Your task to perform on an android device: Go to Yahoo.com Image 0: 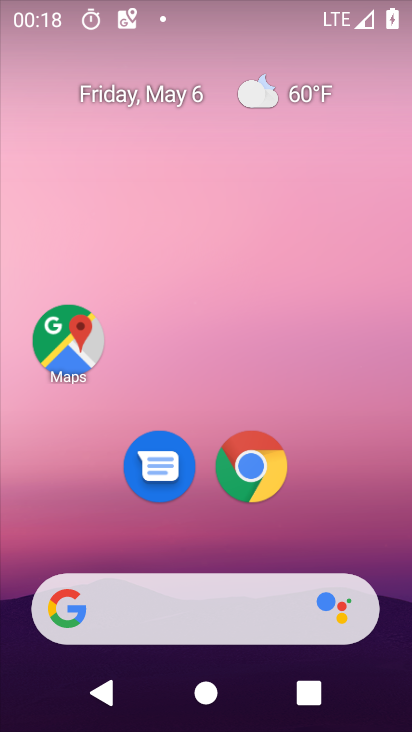
Step 0: click (254, 471)
Your task to perform on an android device: Go to Yahoo.com Image 1: 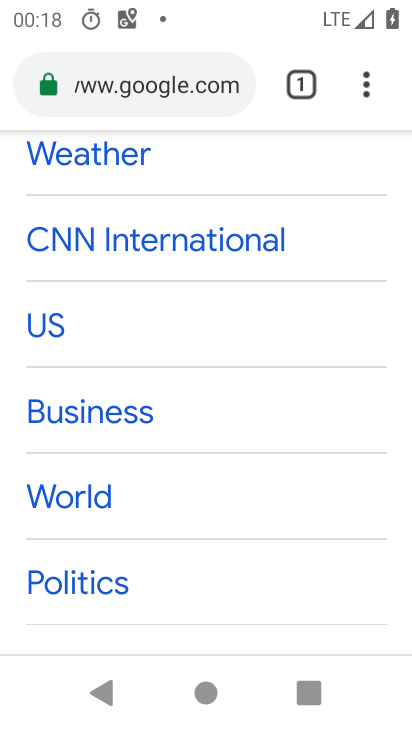
Step 1: click (307, 90)
Your task to perform on an android device: Go to Yahoo.com Image 2: 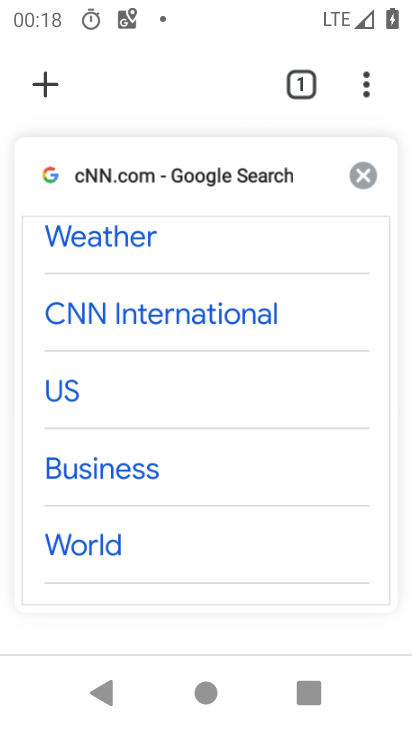
Step 2: click (367, 178)
Your task to perform on an android device: Go to Yahoo.com Image 3: 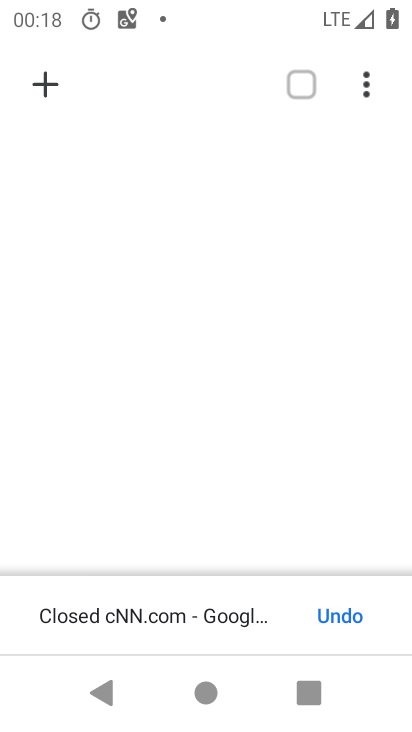
Step 3: click (308, 87)
Your task to perform on an android device: Go to Yahoo.com Image 4: 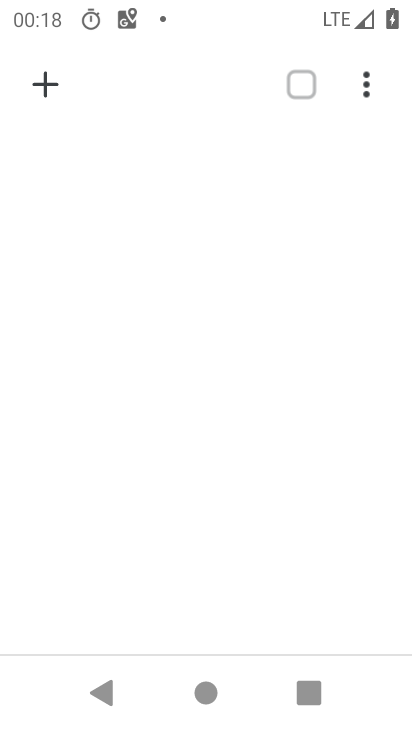
Step 4: click (365, 82)
Your task to perform on an android device: Go to Yahoo.com Image 5: 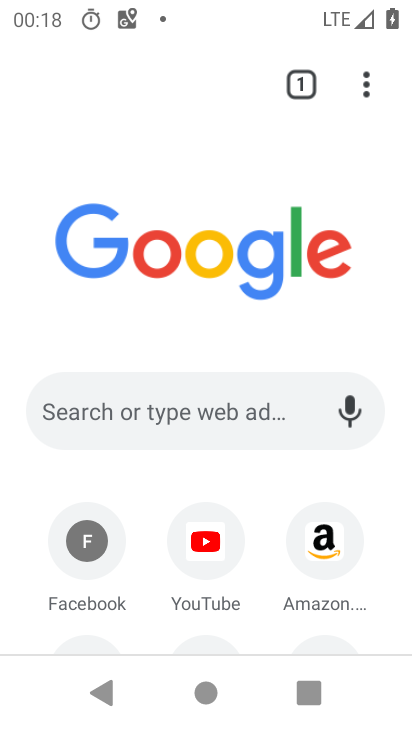
Step 5: drag from (176, 632) to (210, 434)
Your task to perform on an android device: Go to Yahoo.com Image 6: 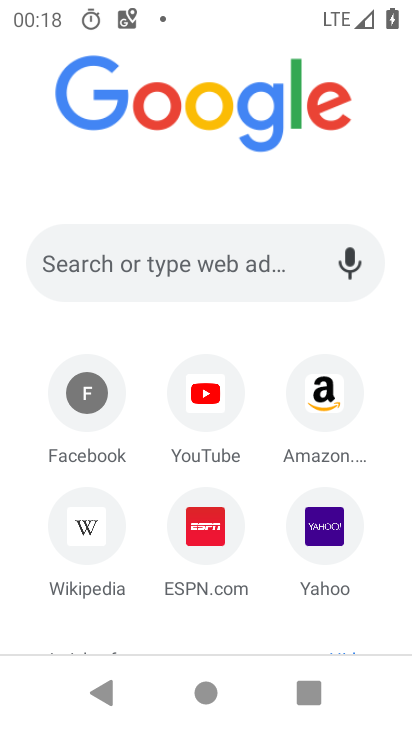
Step 6: click (334, 526)
Your task to perform on an android device: Go to Yahoo.com Image 7: 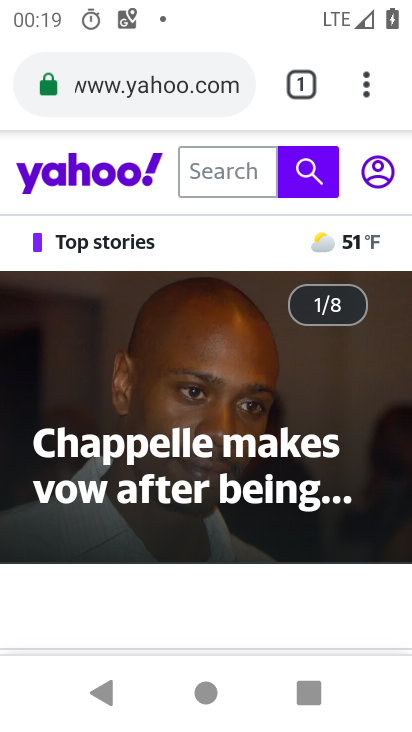
Step 7: task complete